Your task to perform on an android device: open app "Adobe Acrobat Reader" (install if not already installed) Image 0: 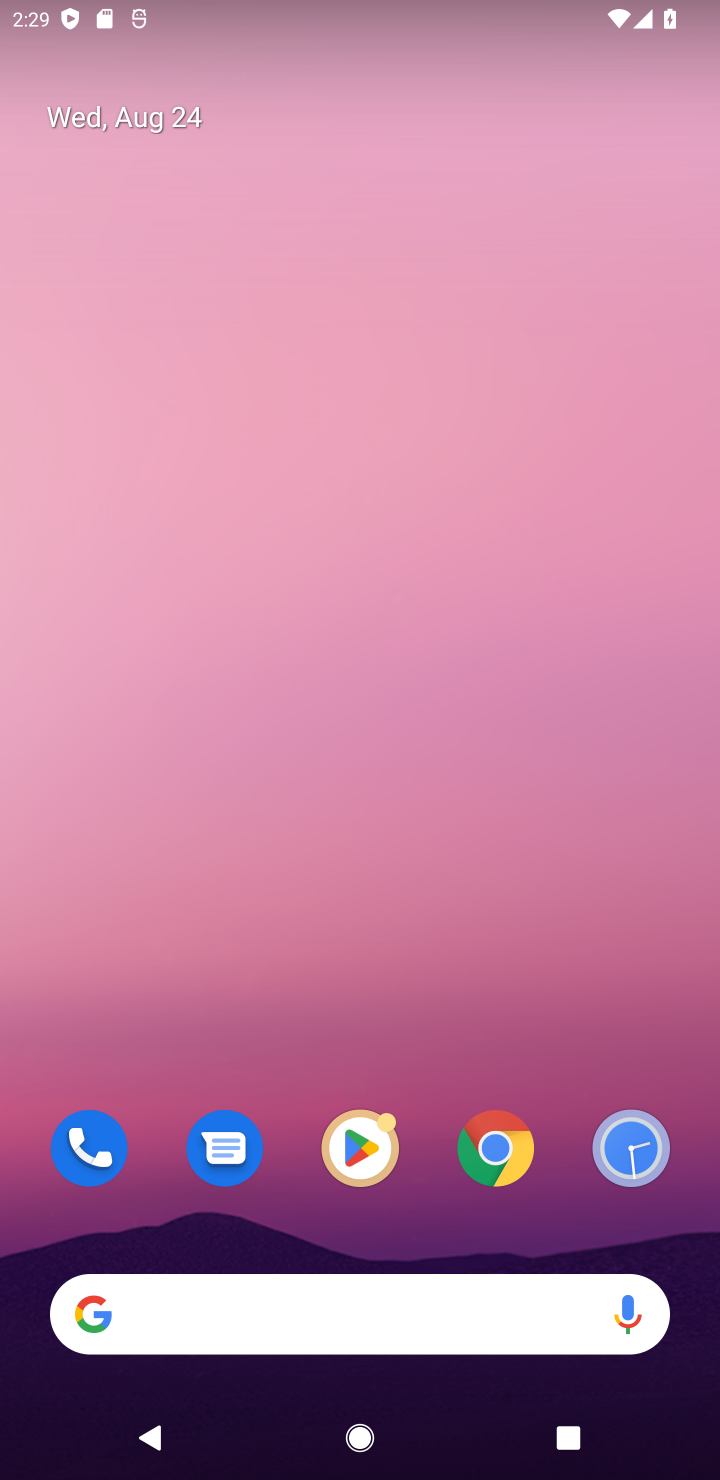
Step 0: drag from (407, 1303) to (455, 102)
Your task to perform on an android device: open app "Adobe Acrobat Reader" (install if not already installed) Image 1: 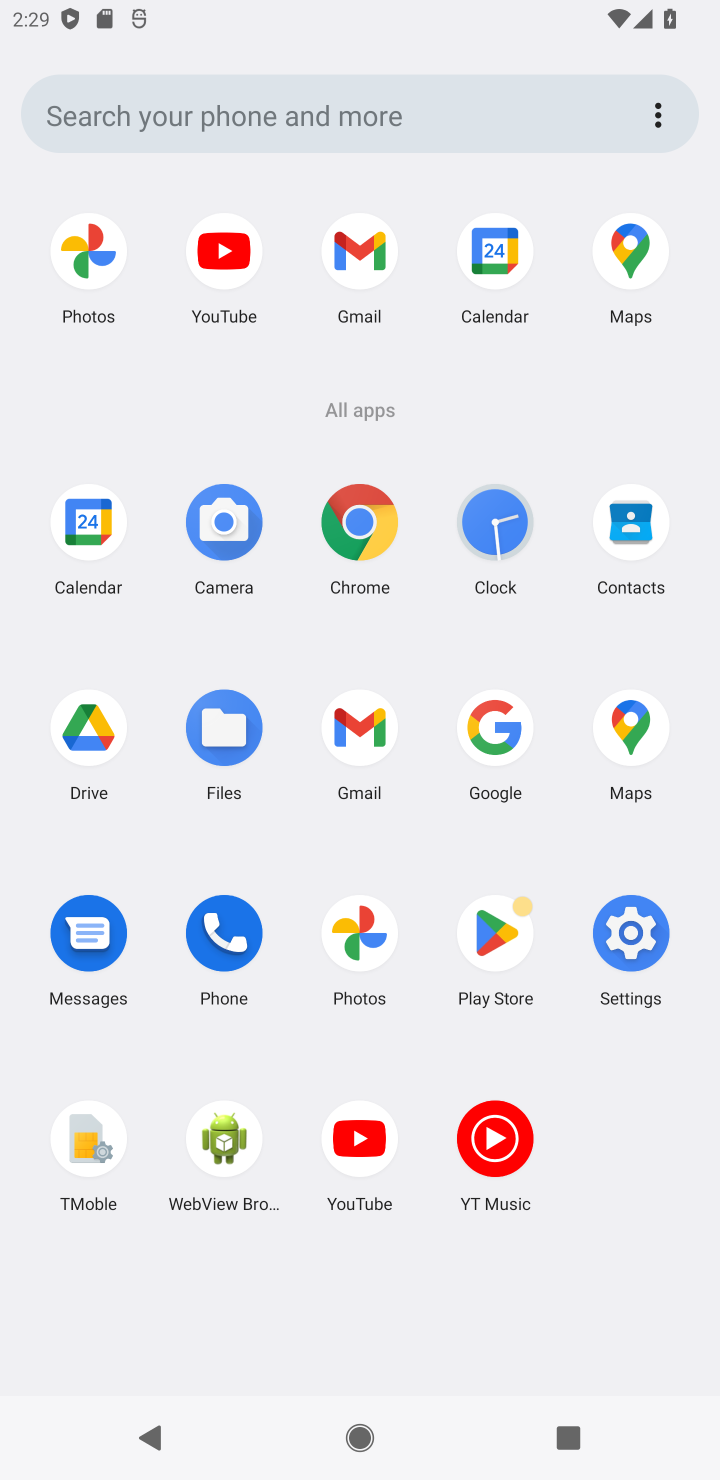
Step 1: click (495, 940)
Your task to perform on an android device: open app "Adobe Acrobat Reader" (install if not already installed) Image 2: 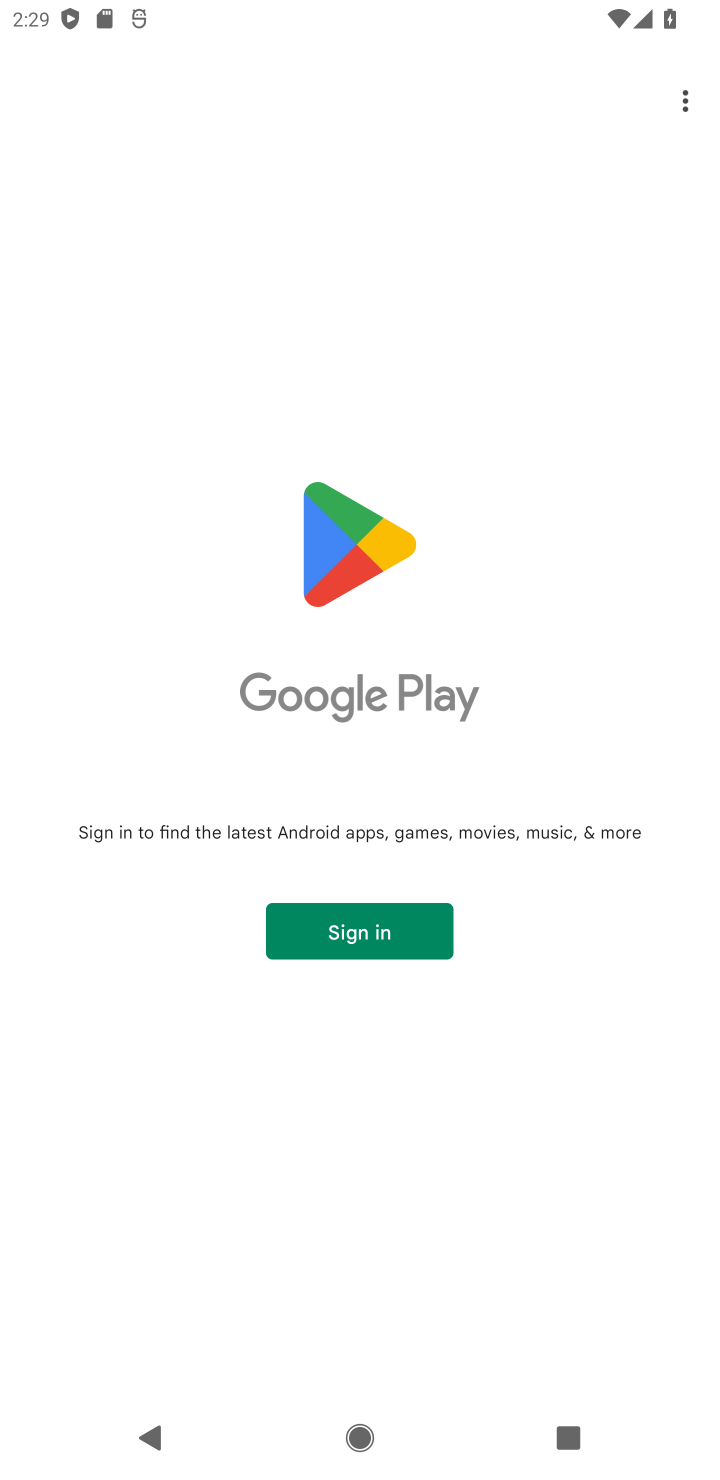
Step 2: click (373, 920)
Your task to perform on an android device: open app "Adobe Acrobat Reader" (install if not already installed) Image 3: 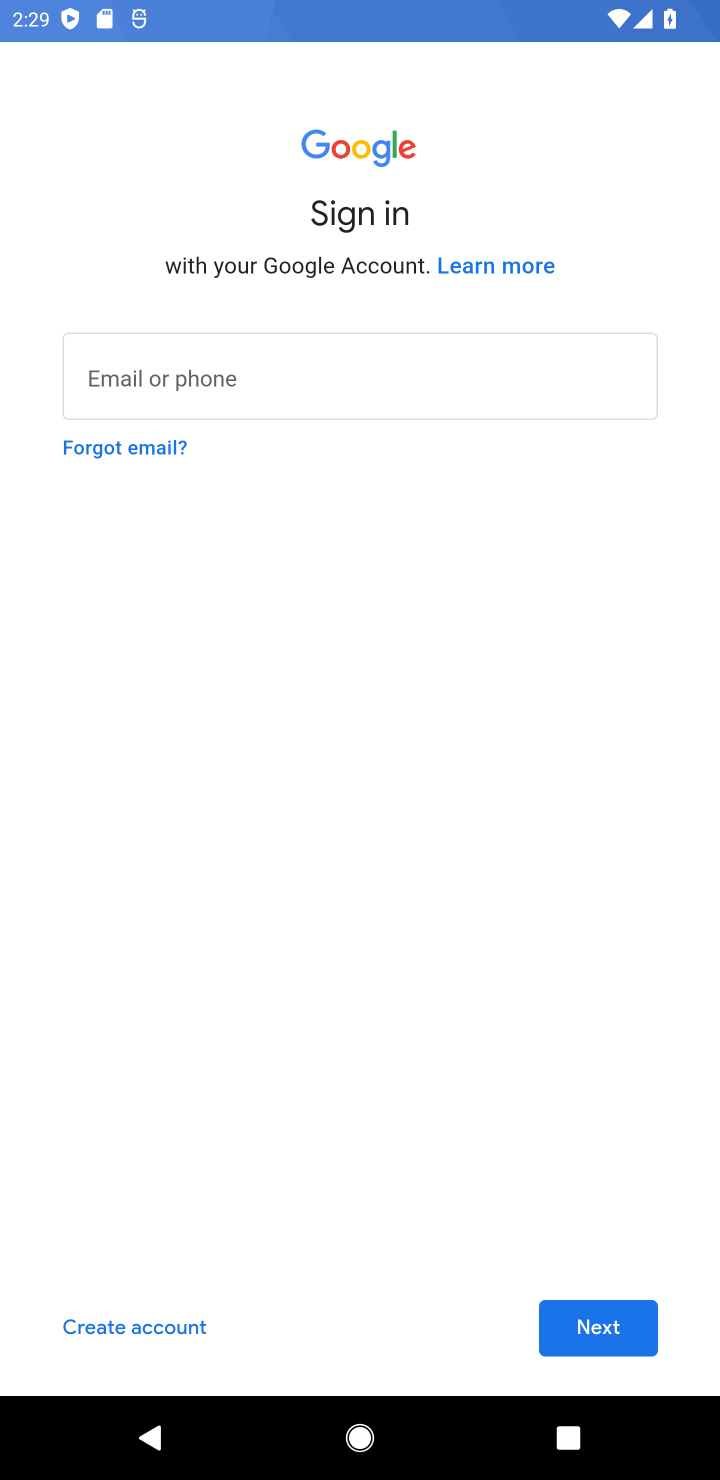
Step 3: task complete